Your task to perform on an android device: Open ESPN.com Image 0: 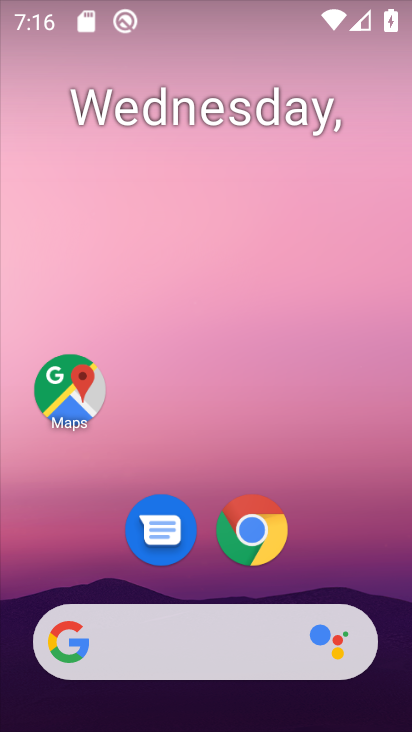
Step 0: drag from (387, 637) to (273, 62)
Your task to perform on an android device: Open ESPN.com Image 1: 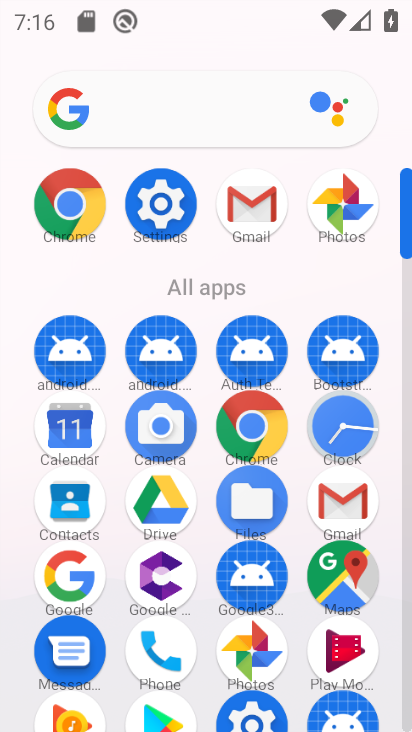
Step 1: click (250, 424)
Your task to perform on an android device: Open ESPN.com Image 2: 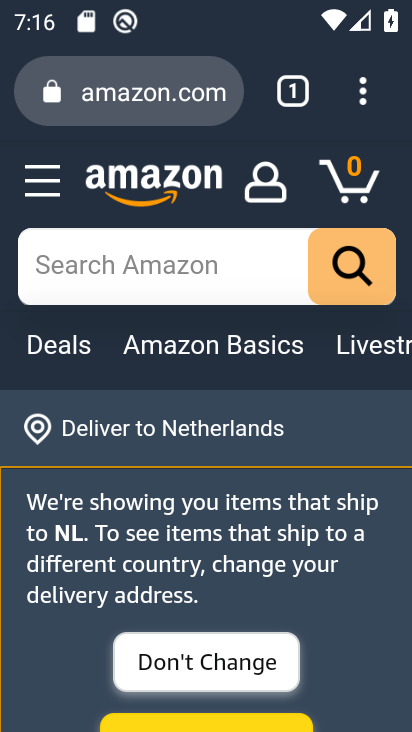
Step 2: press back button
Your task to perform on an android device: Open ESPN.com Image 3: 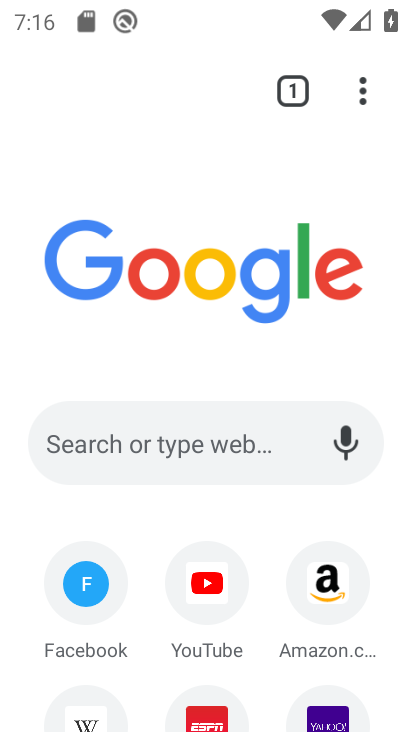
Step 3: drag from (160, 658) to (174, 375)
Your task to perform on an android device: Open ESPN.com Image 4: 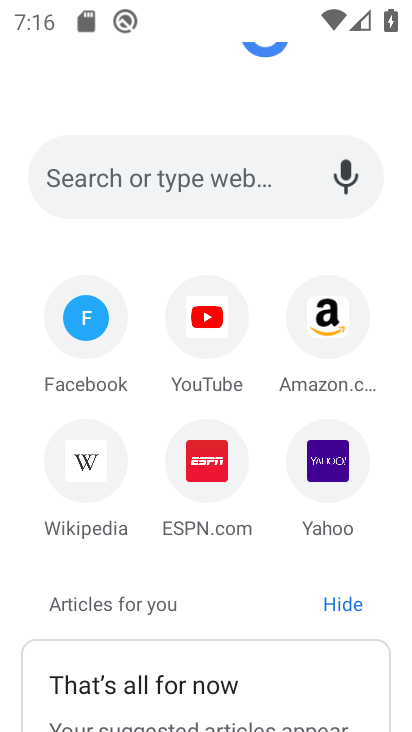
Step 4: click (215, 471)
Your task to perform on an android device: Open ESPN.com Image 5: 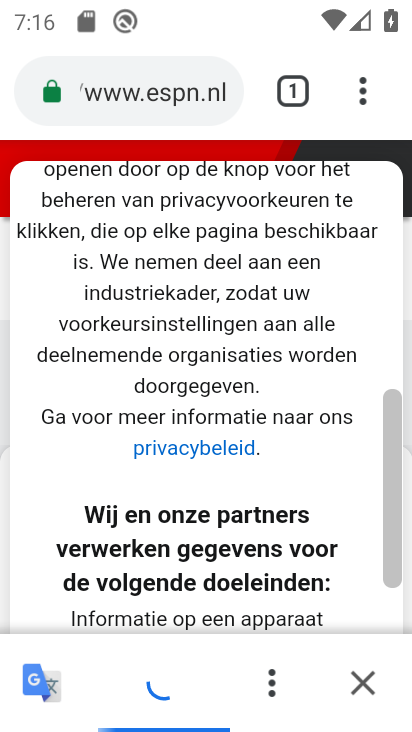
Step 5: task complete